Your task to perform on an android device: change the clock display to analog Image 0: 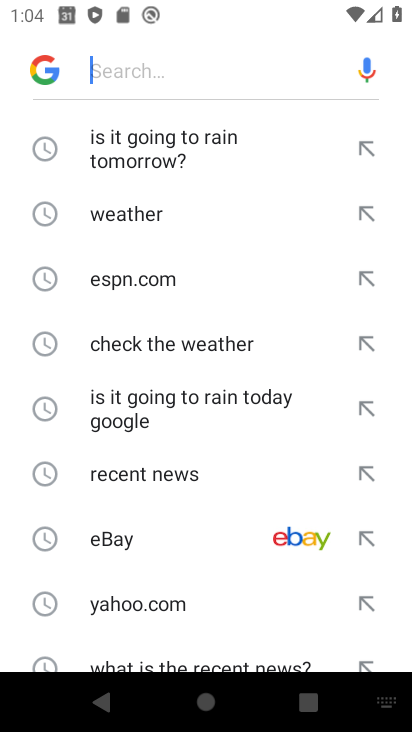
Step 0: press home button
Your task to perform on an android device: change the clock display to analog Image 1: 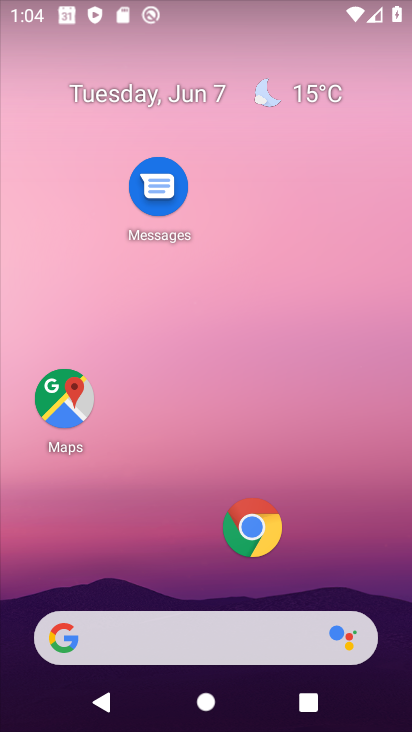
Step 1: drag from (178, 612) to (208, 113)
Your task to perform on an android device: change the clock display to analog Image 2: 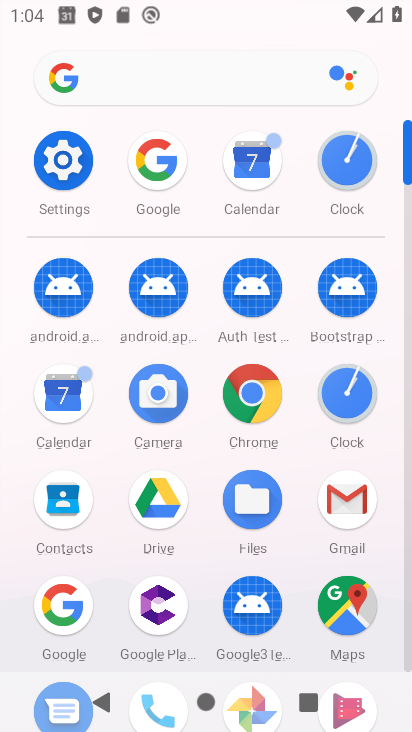
Step 2: click (339, 394)
Your task to perform on an android device: change the clock display to analog Image 3: 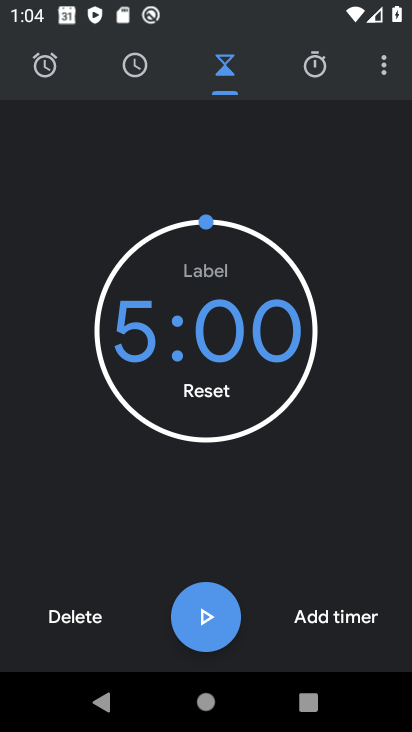
Step 3: click (395, 65)
Your task to perform on an android device: change the clock display to analog Image 4: 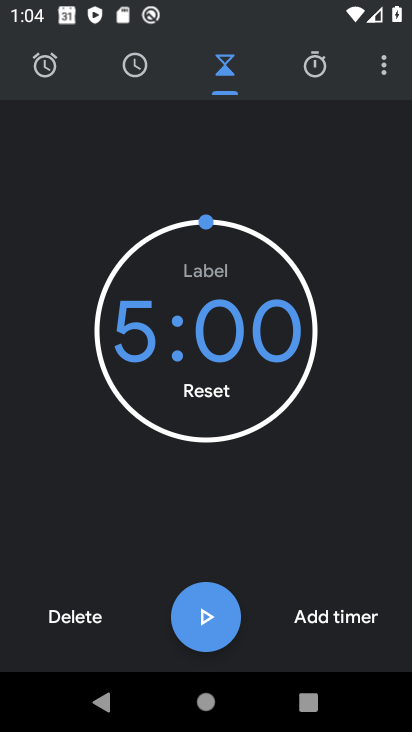
Step 4: click (384, 65)
Your task to perform on an android device: change the clock display to analog Image 5: 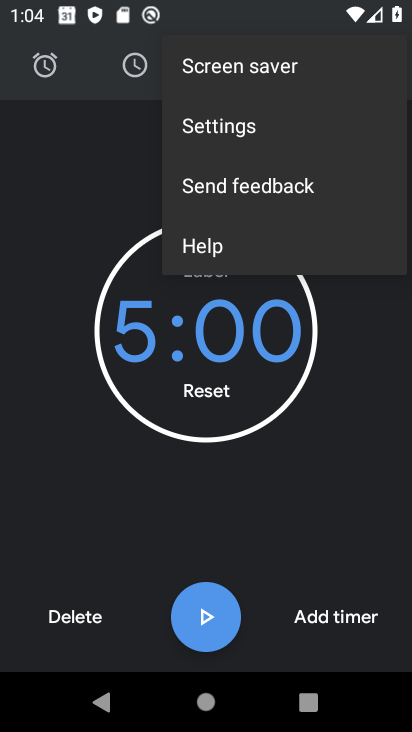
Step 5: click (238, 137)
Your task to perform on an android device: change the clock display to analog Image 6: 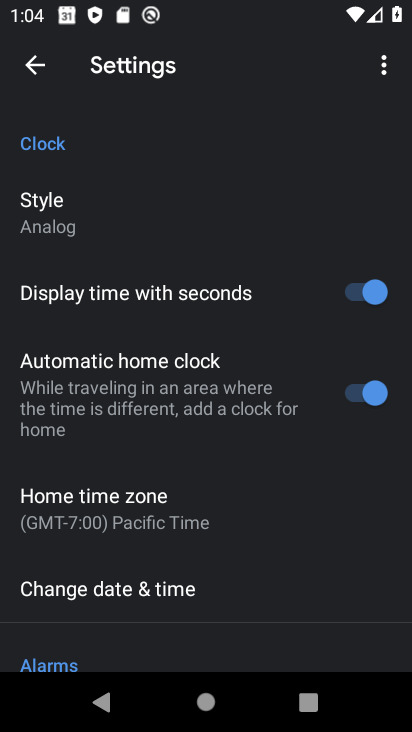
Step 6: task complete